Your task to perform on an android device: toggle sleep mode Image 0: 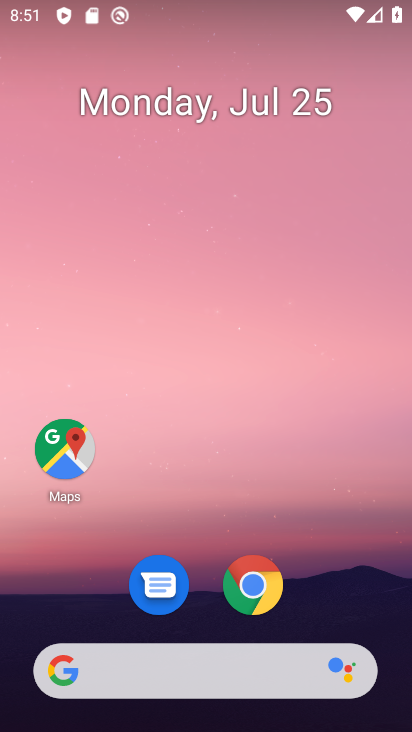
Step 0: drag from (245, 604) to (366, 111)
Your task to perform on an android device: toggle sleep mode Image 1: 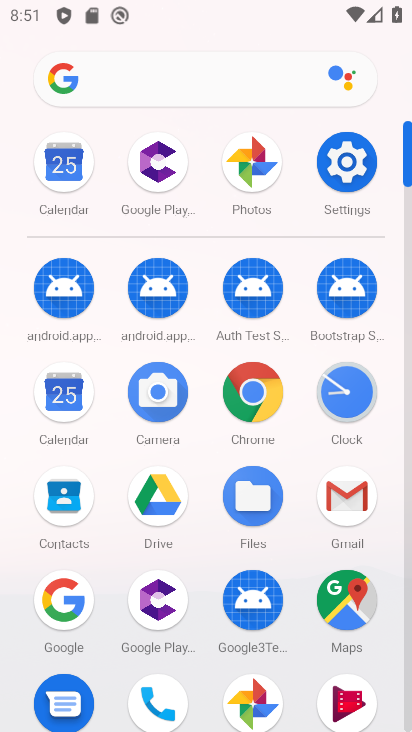
Step 1: click (341, 160)
Your task to perform on an android device: toggle sleep mode Image 2: 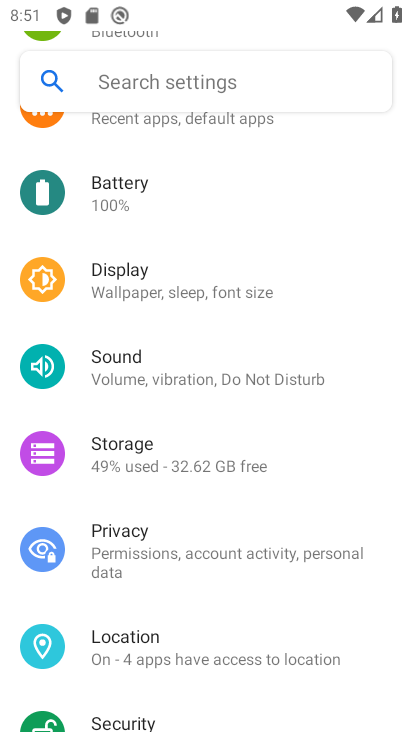
Step 2: click (187, 288)
Your task to perform on an android device: toggle sleep mode Image 3: 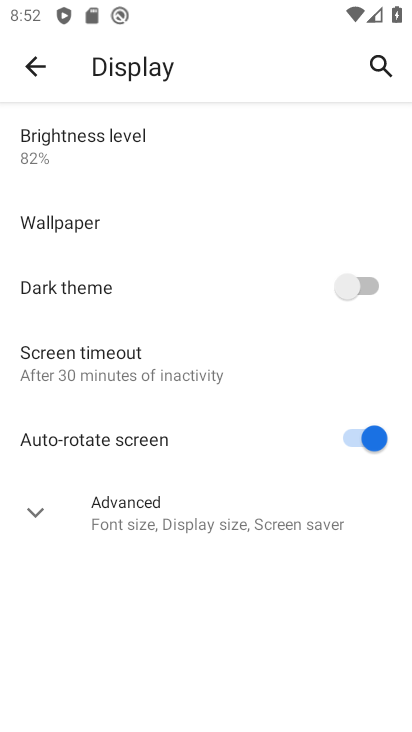
Step 3: task complete